Your task to perform on an android device: change the upload size in google photos Image 0: 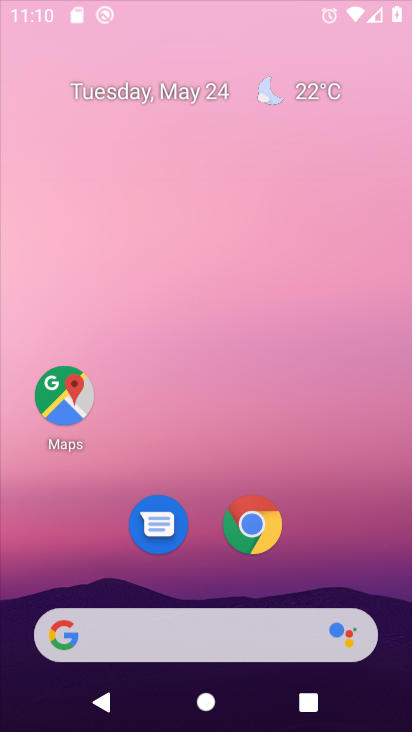
Step 0: press home button
Your task to perform on an android device: change the upload size in google photos Image 1: 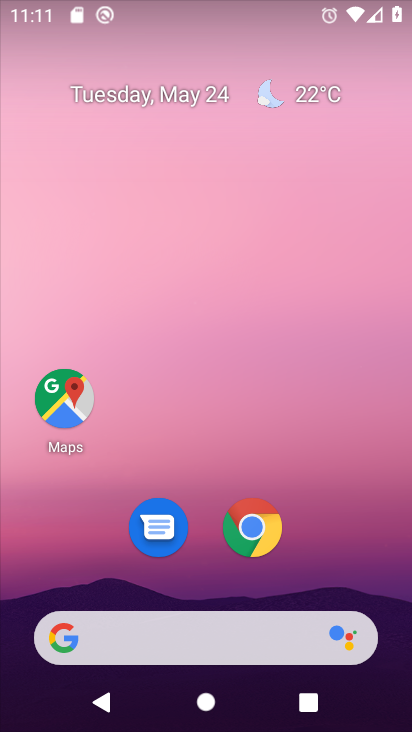
Step 1: drag from (171, 619) to (331, 64)
Your task to perform on an android device: change the upload size in google photos Image 2: 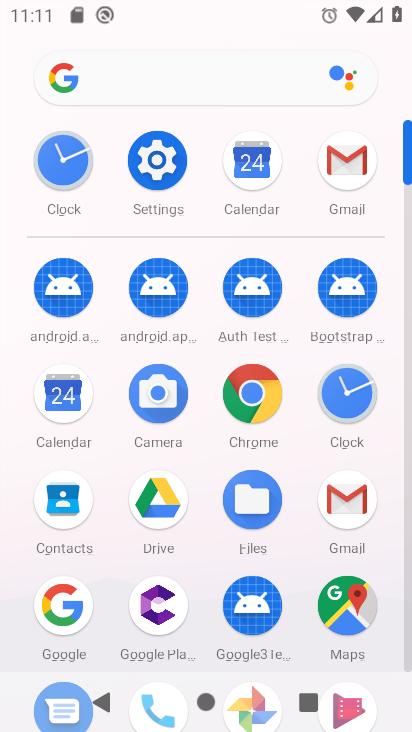
Step 2: drag from (208, 585) to (393, 75)
Your task to perform on an android device: change the upload size in google photos Image 3: 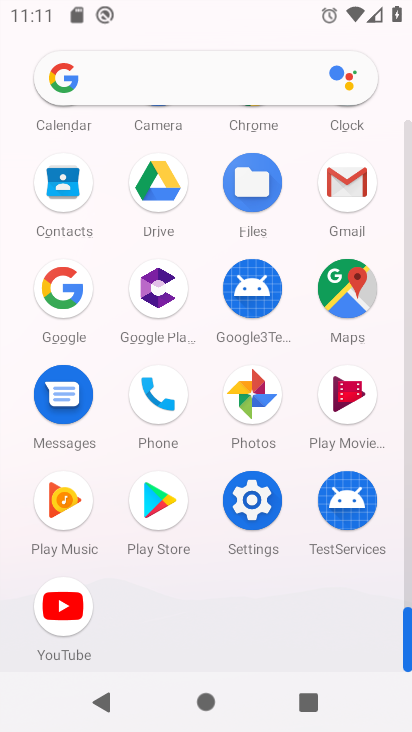
Step 3: click (257, 397)
Your task to perform on an android device: change the upload size in google photos Image 4: 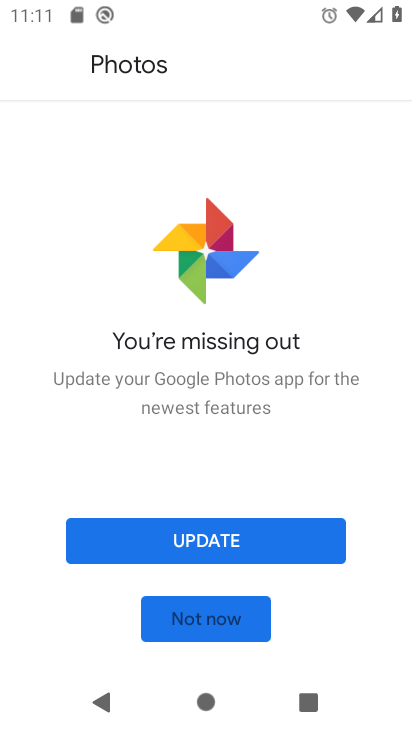
Step 4: click (203, 528)
Your task to perform on an android device: change the upload size in google photos Image 5: 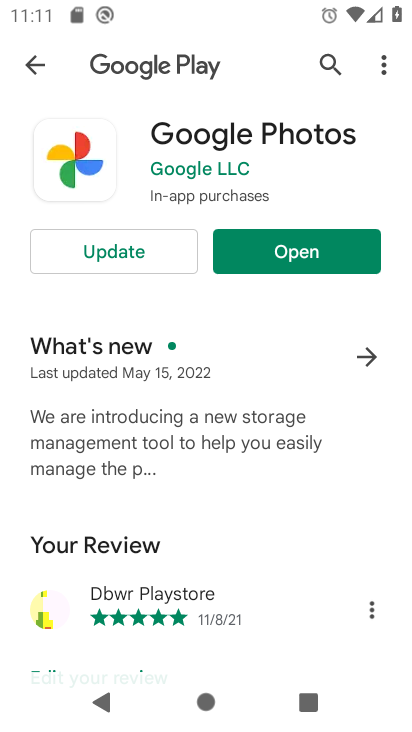
Step 5: click (124, 252)
Your task to perform on an android device: change the upload size in google photos Image 6: 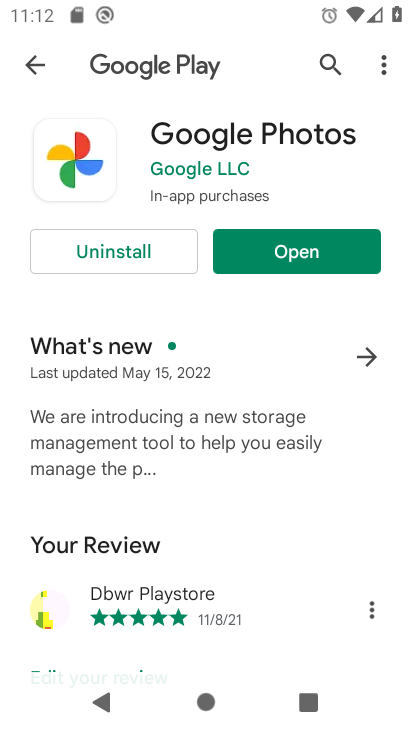
Step 6: click (296, 254)
Your task to perform on an android device: change the upload size in google photos Image 7: 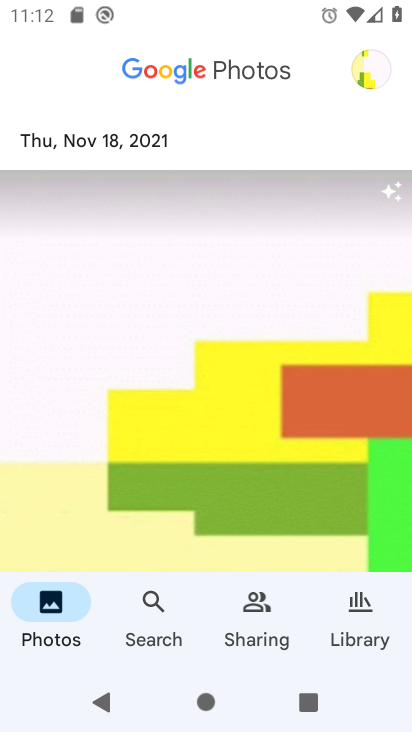
Step 7: click (363, 73)
Your task to perform on an android device: change the upload size in google photos Image 8: 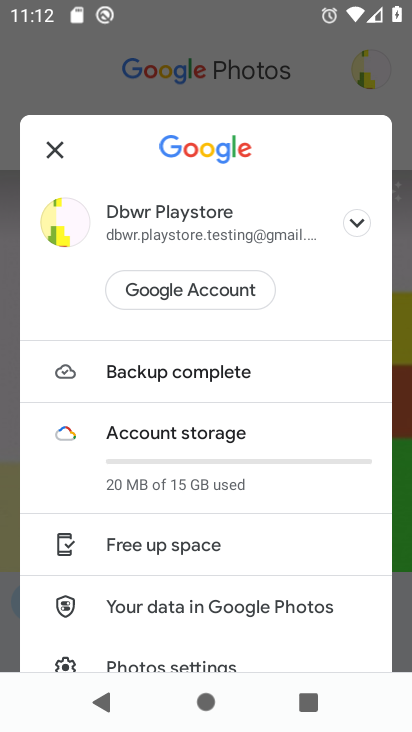
Step 8: drag from (223, 638) to (347, 223)
Your task to perform on an android device: change the upload size in google photos Image 9: 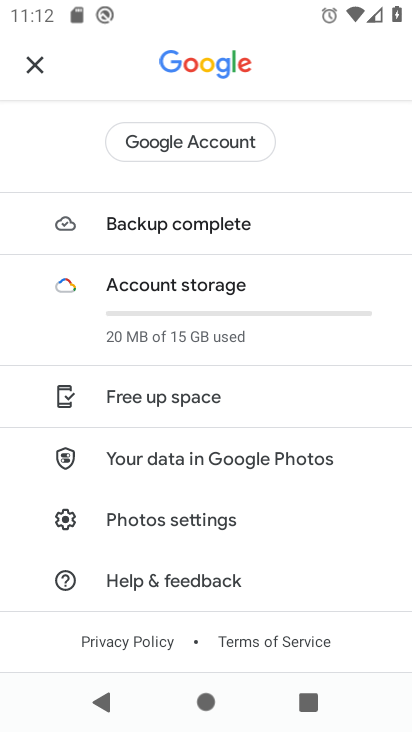
Step 9: drag from (254, 586) to (294, 323)
Your task to perform on an android device: change the upload size in google photos Image 10: 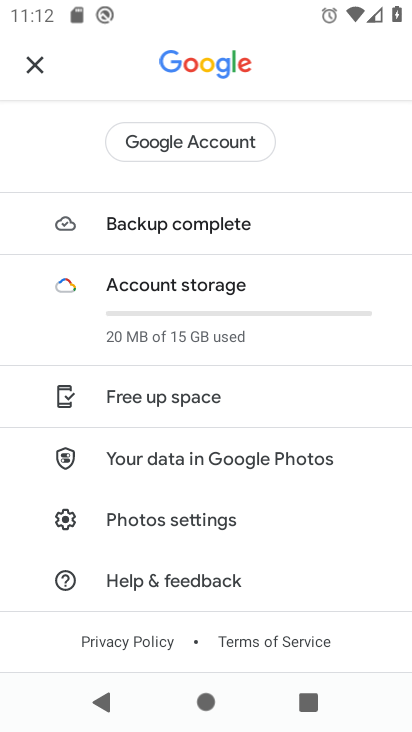
Step 10: click (189, 524)
Your task to perform on an android device: change the upload size in google photos Image 11: 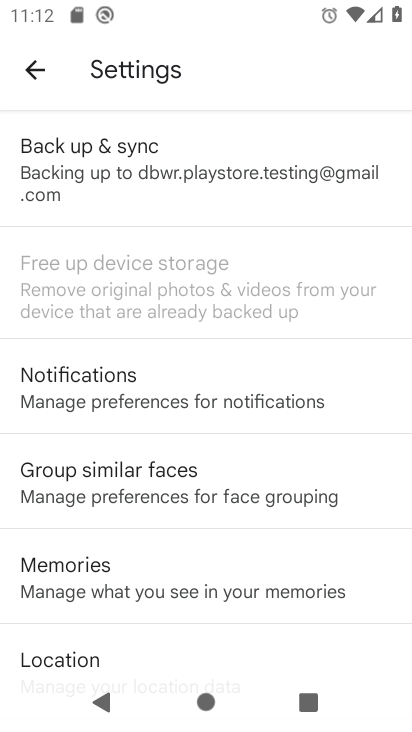
Step 11: click (216, 188)
Your task to perform on an android device: change the upload size in google photos Image 12: 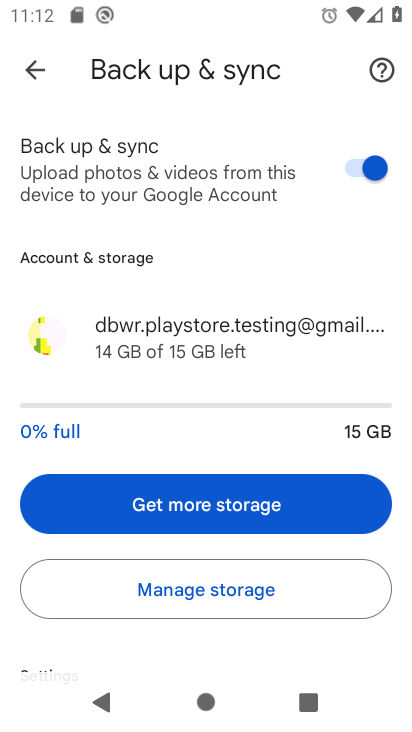
Step 12: drag from (219, 621) to (265, 135)
Your task to perform on an android device: change the upload size in google photos Image 13: 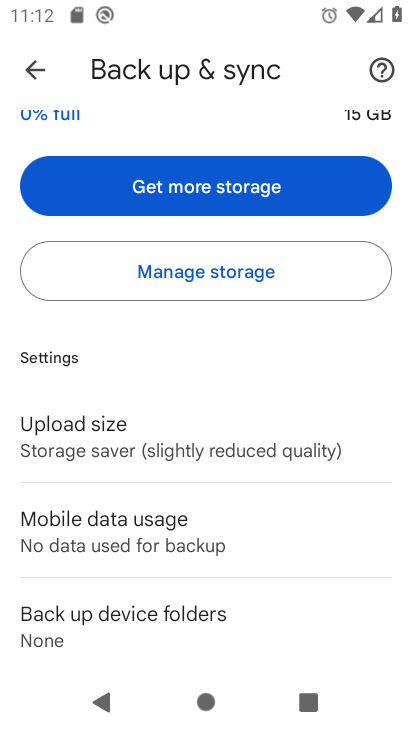
Step 13: click (112, 431)
Your task to perform on an android device: change the upload size in google photos Image 14: 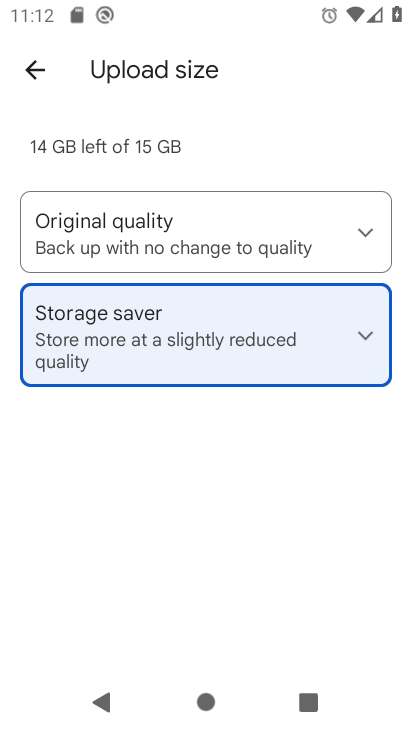
Step 14: click (368, 230)
Your task to perform on an android device: change the upload size in google photos Image 15: 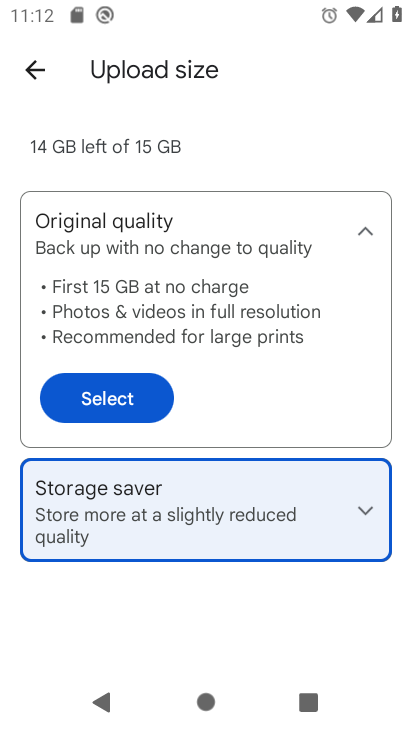
Step 15: click (82, 393)
Your task to perform on an android device: change the upload size in google photos Image 16: 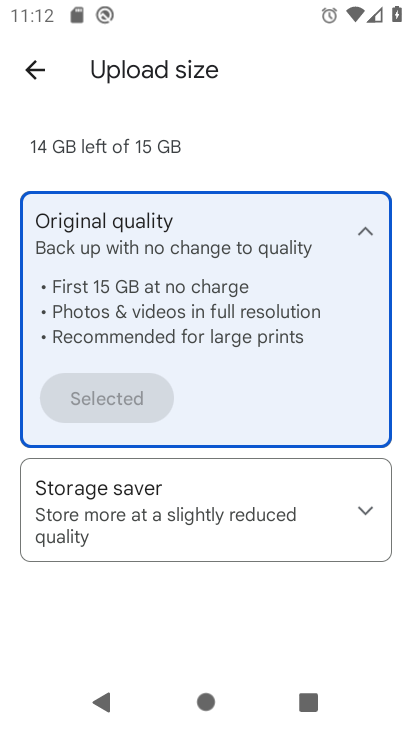
Step 16: task complete